Your task to perform on an android device: Search for apple airpods on newegg, select the first entry, add it to the cart, then select checkout. Image 0: 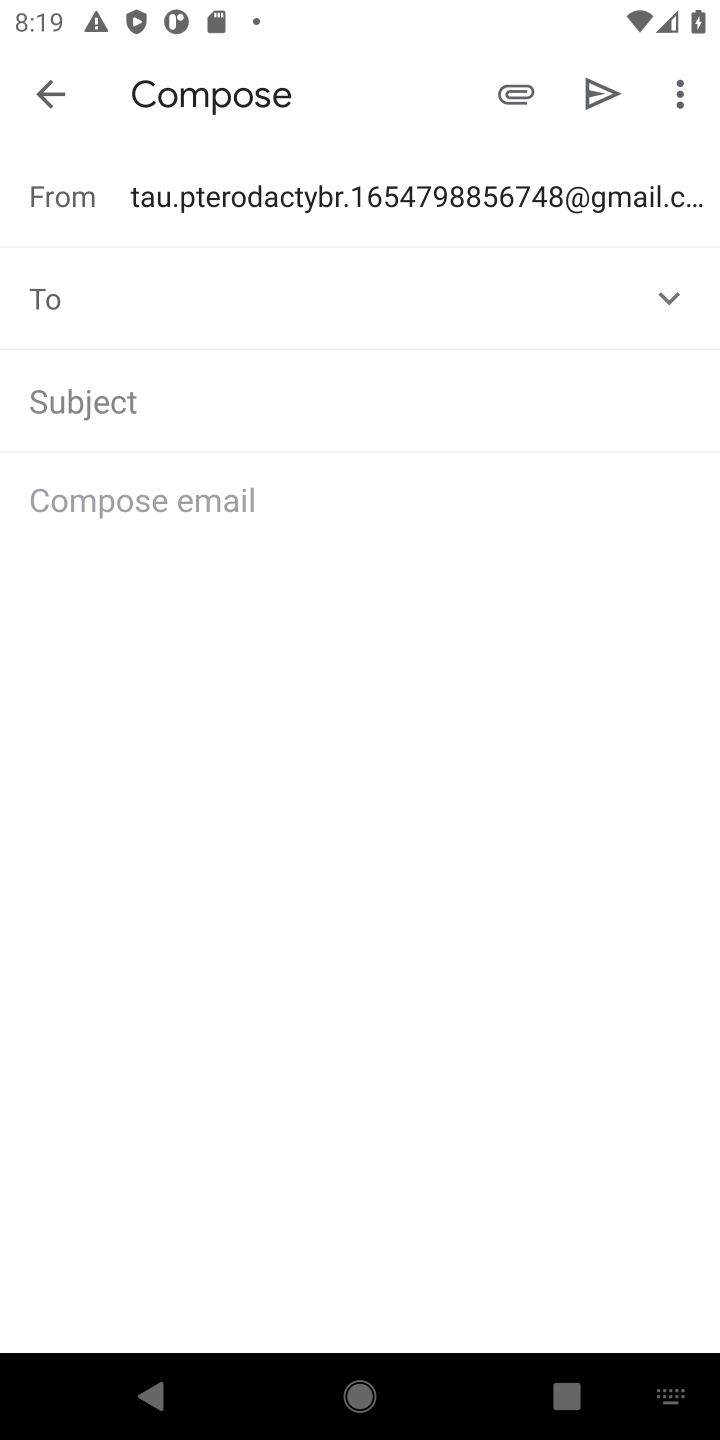
Step 0: press home button
Your task to perform on an android device: Search for apple airpods on newegg, select the first entry, add it to the cart, then select checkout. Image 1: 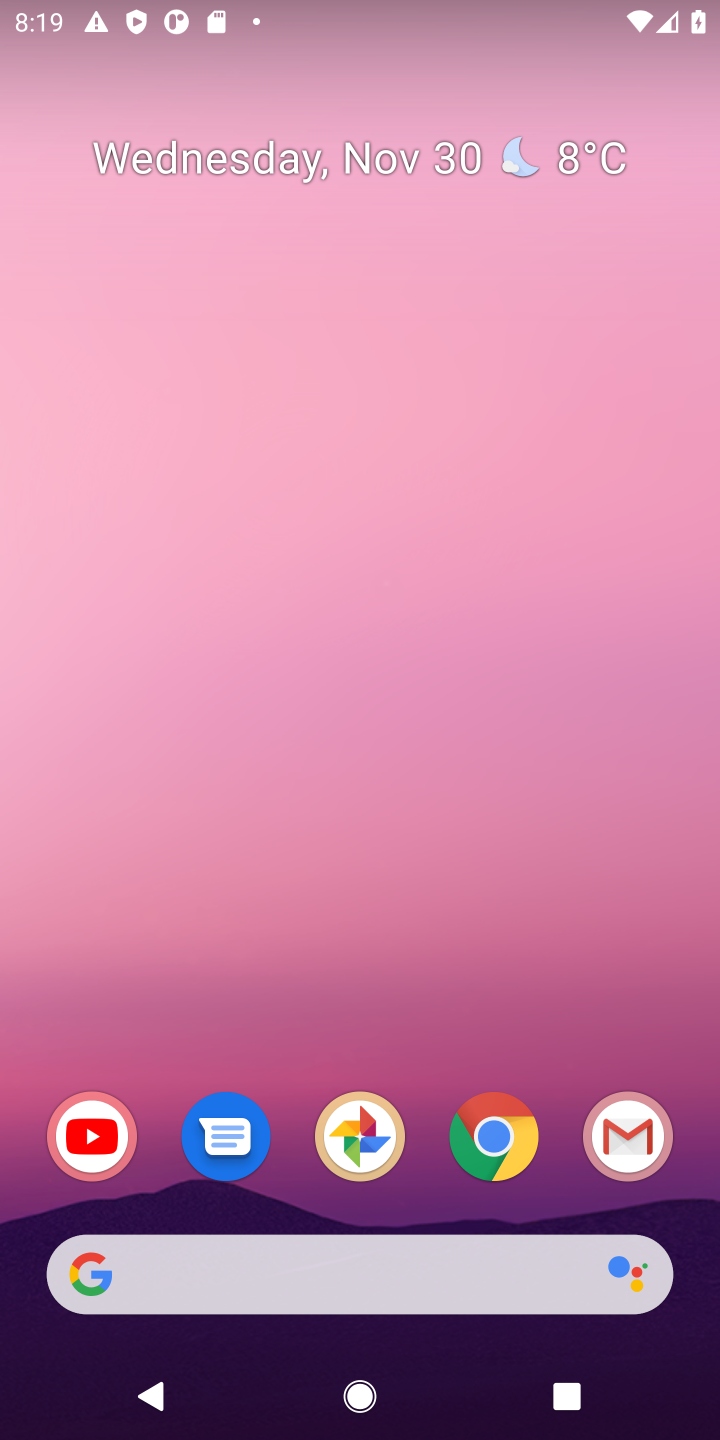
Step 1: click (488, 1141)
Your task to perform on an android device: Search for apple airpods on newegg, select the first entry, add it to the cart, then select checkout. Image 2: 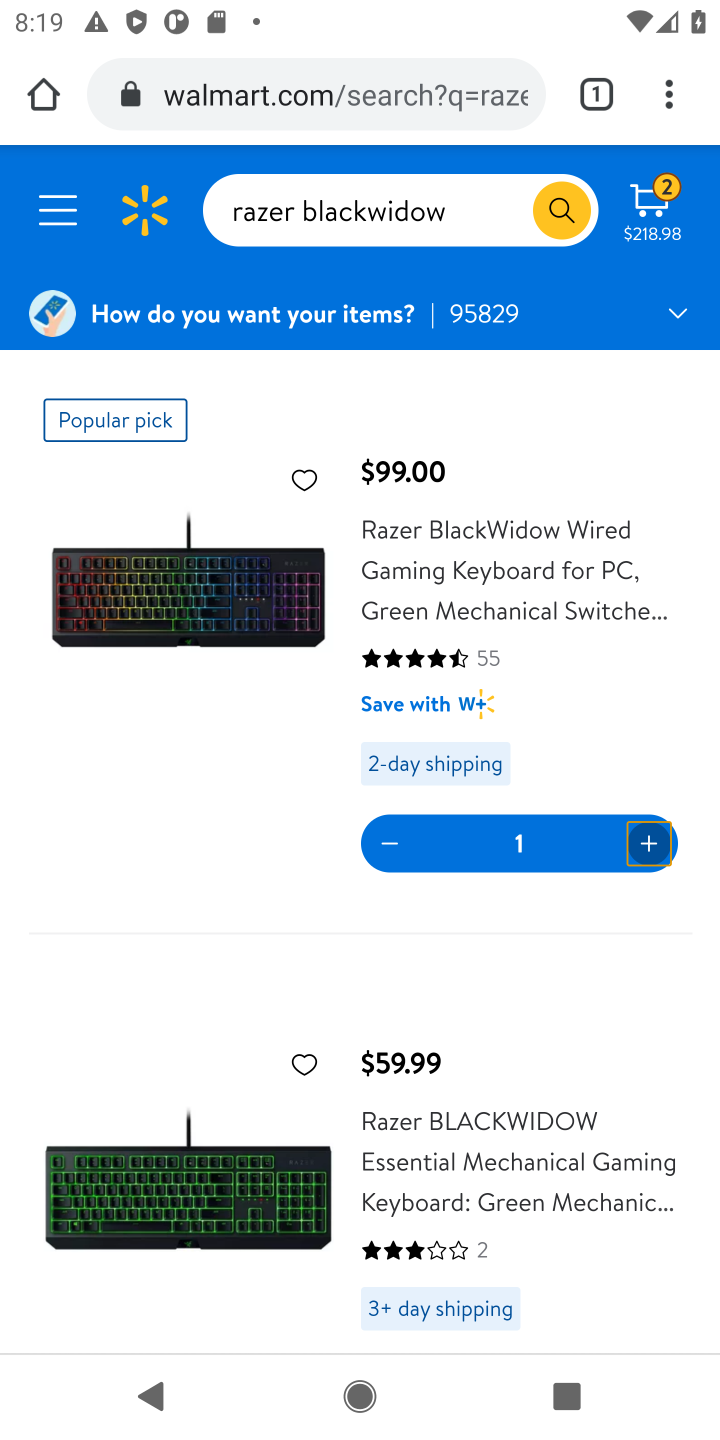
Step 2: click (284, 91)
Your task to perform on an android device: Search for apple airpods on newegg, select the first entry, add it to the cart, then select checkout. Image 3: 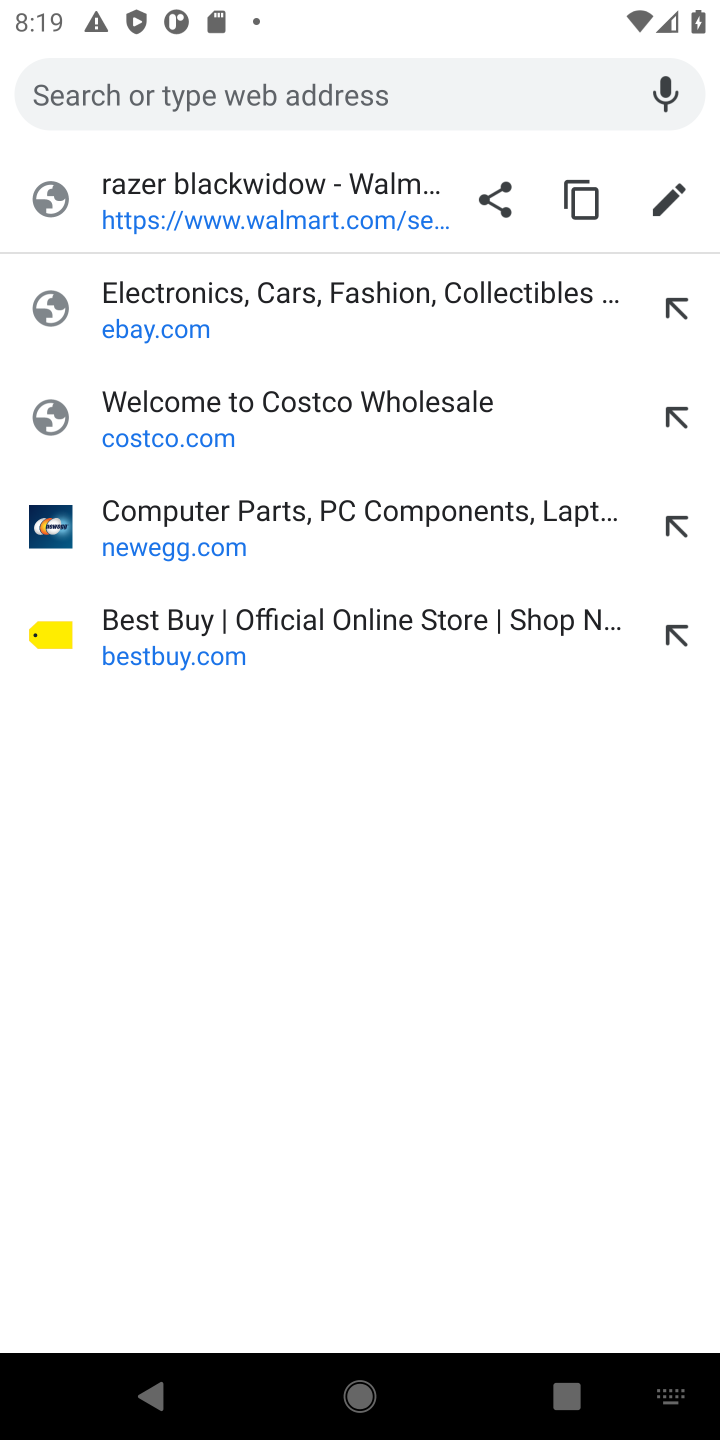
Step 3: click (158, 538)
Your task to perform on an android device: Search for apple airpods on newegg, select the first entry, add it to the cart, then select checkout. Image 4: 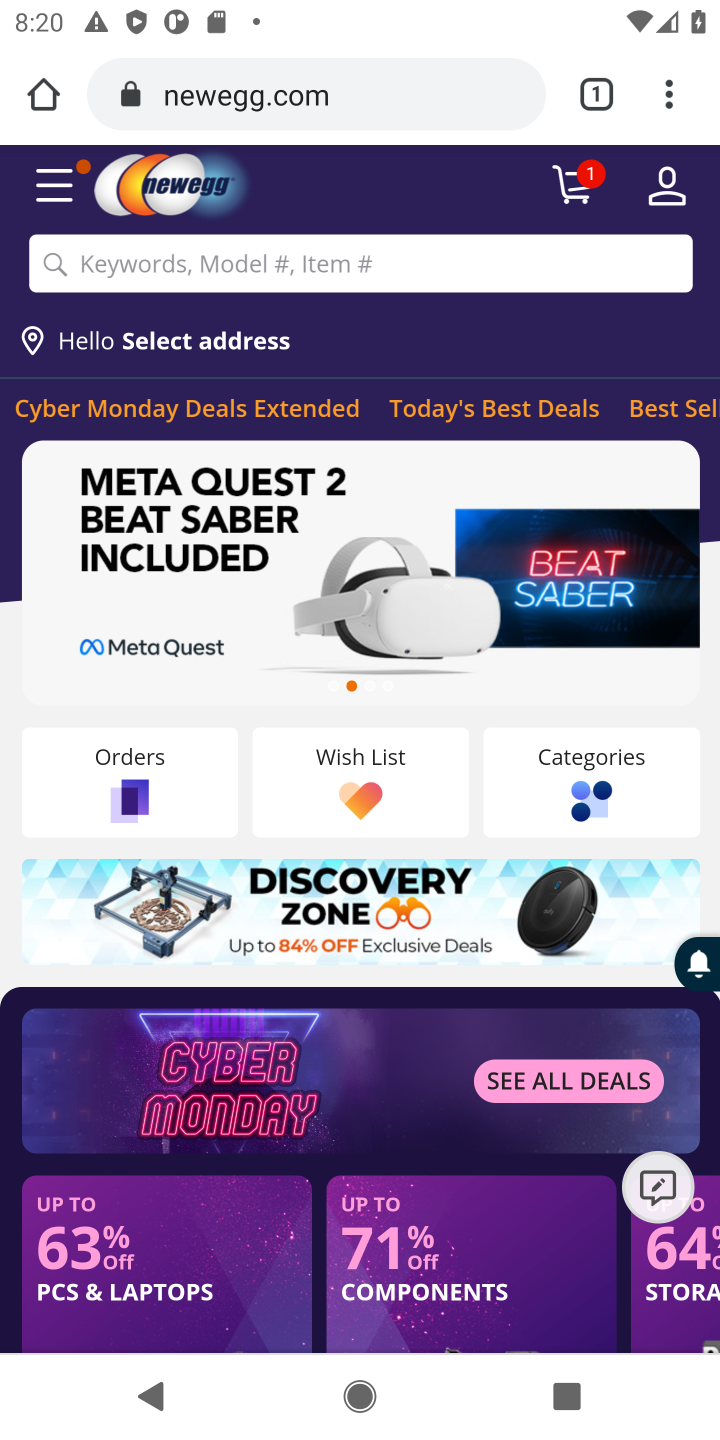
Step 4: click (321, 257)
Your task to perform on an android device: Search for apple airpods on newegg, select the first entry, add it to the cart, then select checkout. Image 5: 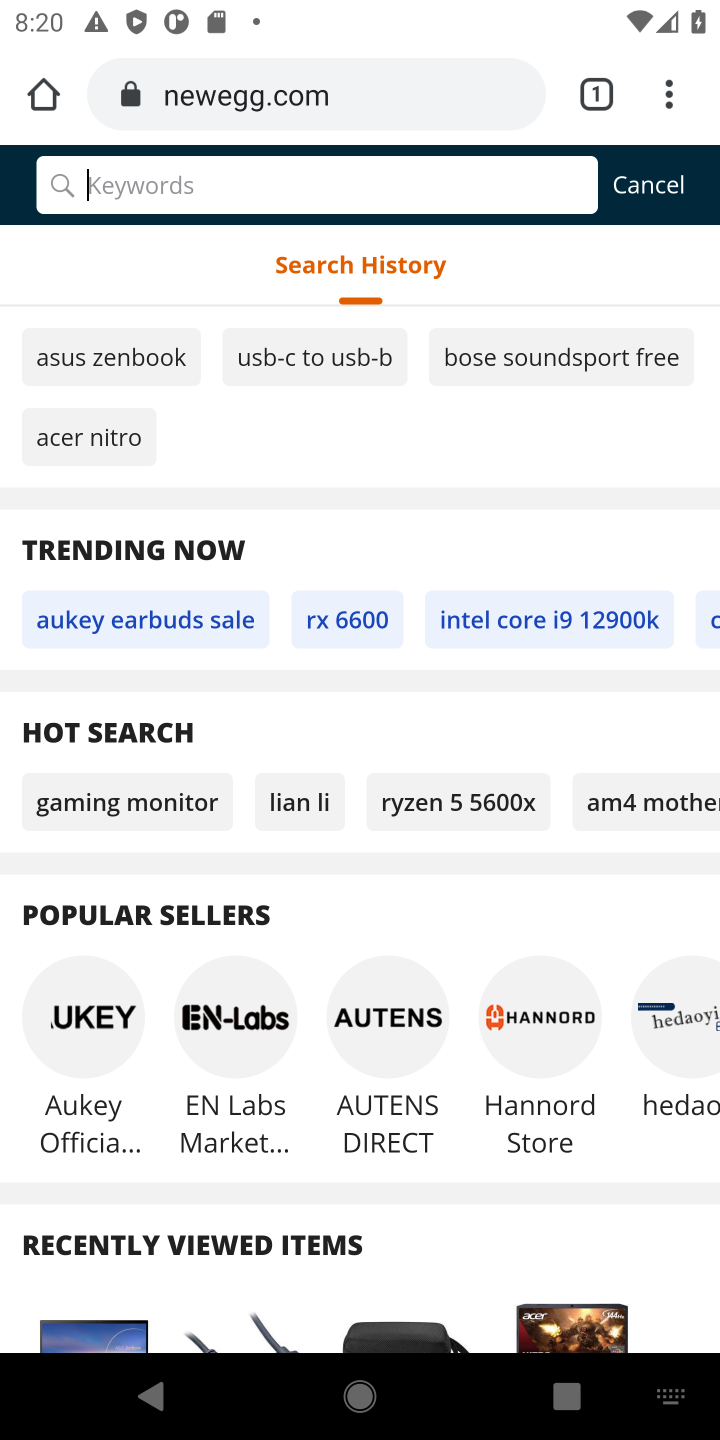
Step 5: type "apple airpods "
Your task to perform on an android device: Search for apple airpods on newegg, select the first entry, add it to the cart, then select checkout. Image 6: 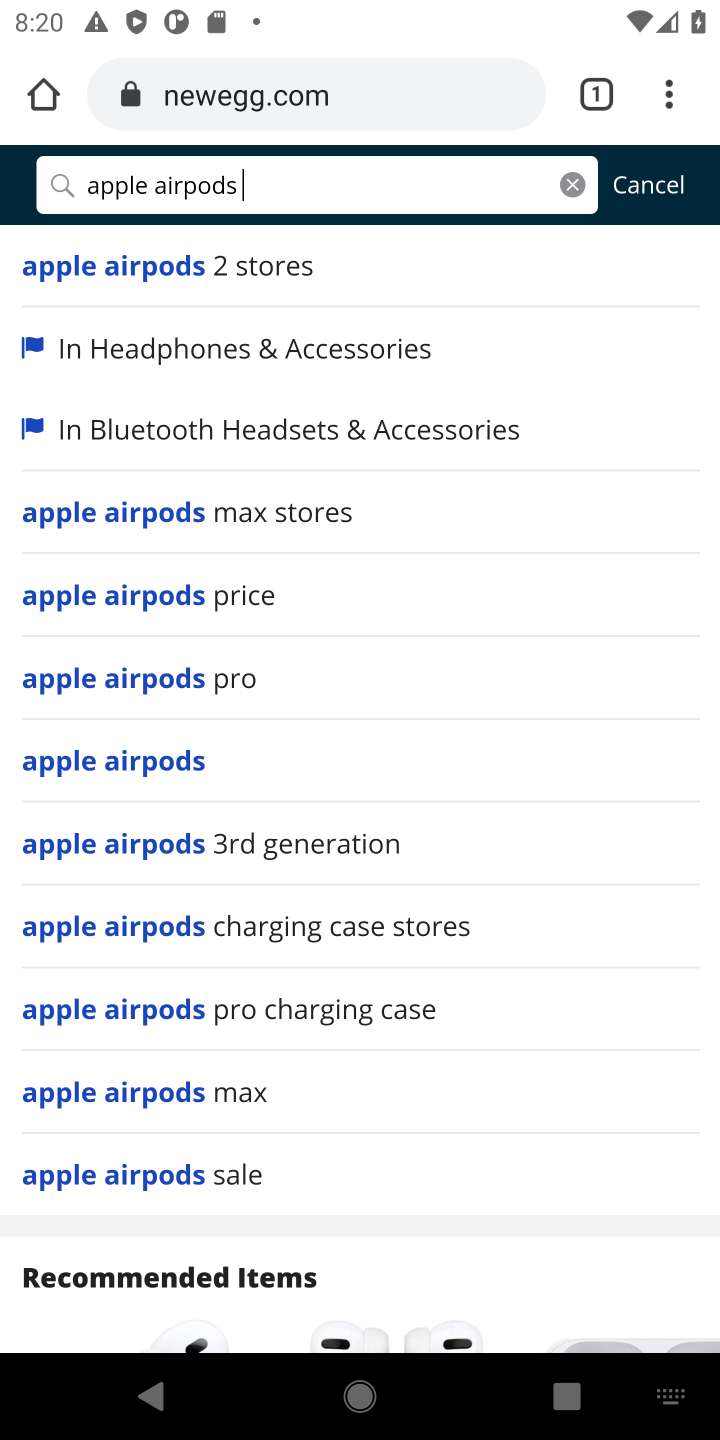
Step 6: click (139, 755)
Your task to perform on an android device: Search for apple airpods on newegg, select the first entry, add it to the cart, then select checkout. Image 7: 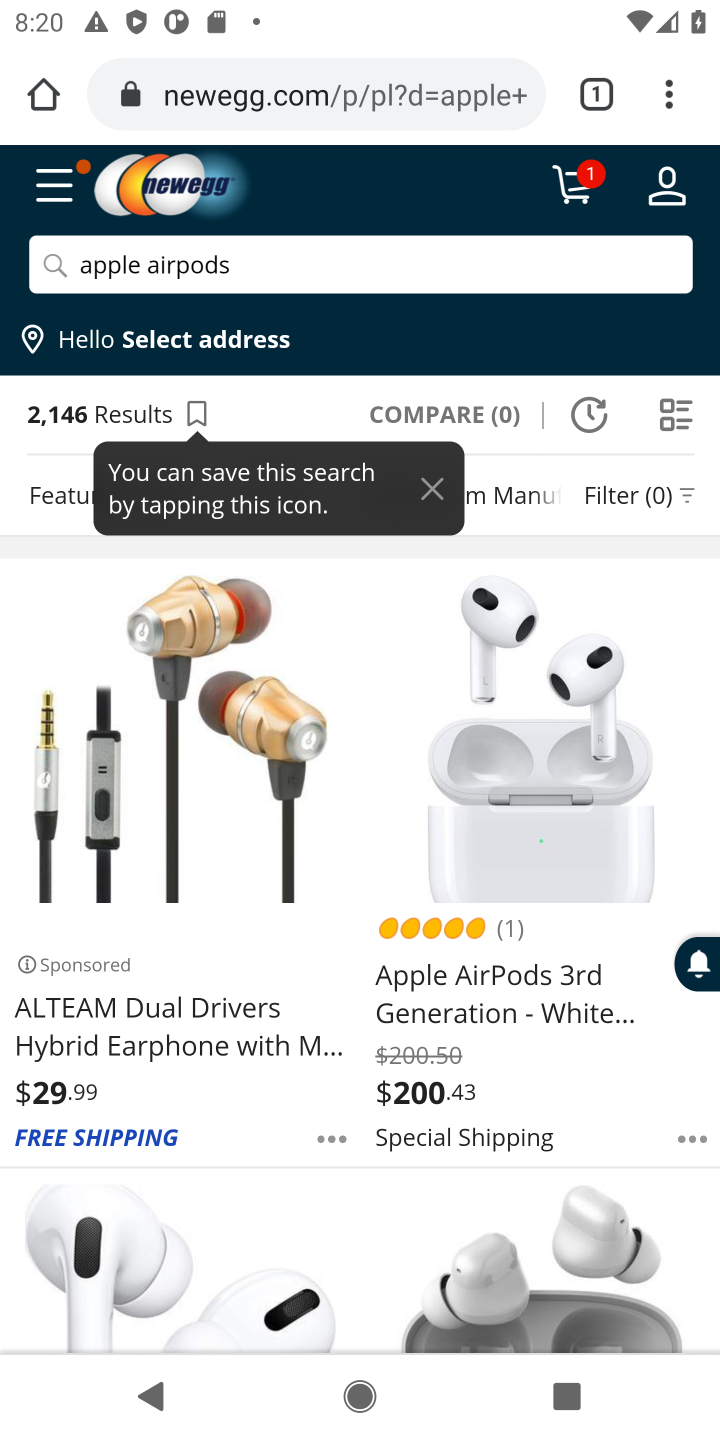
Step 7: task complete